Your task to perform on an android device: set the stopwatch Image 0: 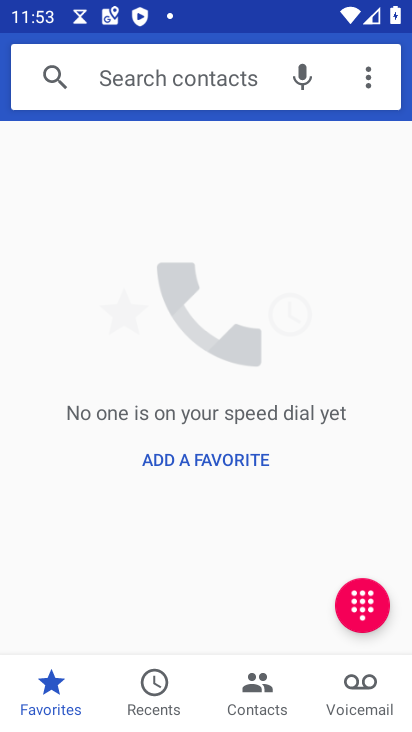
Step 0: press home button
Your task to perform on an android device: set the stopwatch Image 1: 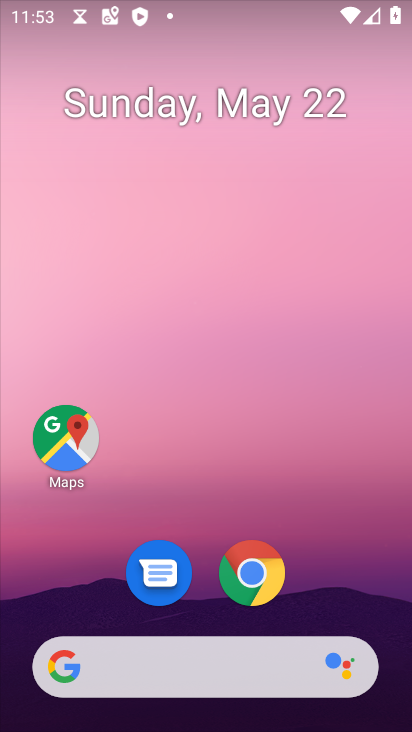
Step 1: drag from (182, 673) to (302, 203)
Your task to perform on an android device: set the stopwatch Image 2: 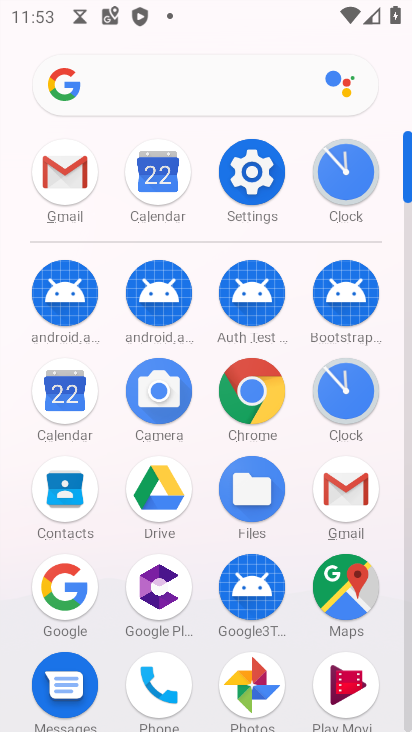
Step 2: click (353, 174)
Your task to perform on an android device: set the stopwatch Image 3: 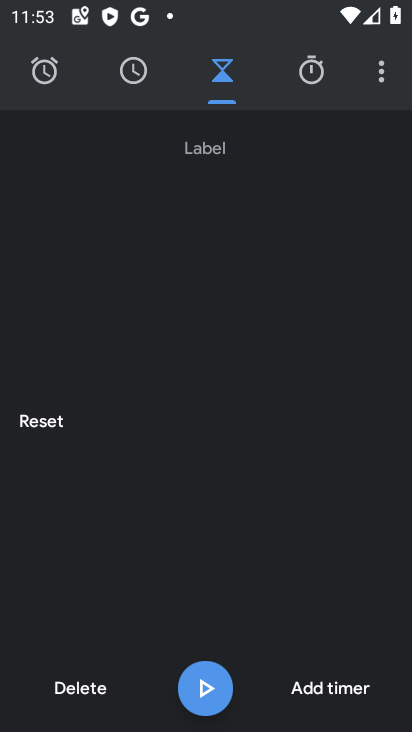
Step 3: click (314, 77)
Your task to perform on an android device: set the stopwatch Image 4: 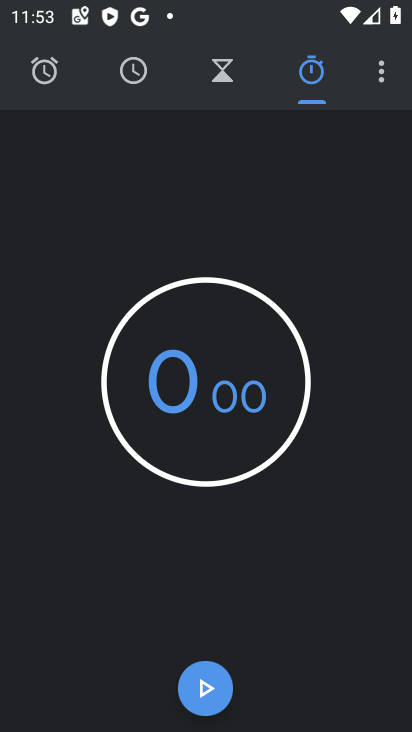
Step 4: click (150, 397)
Your task to perform on an android device: set the stopwatch Image 5: 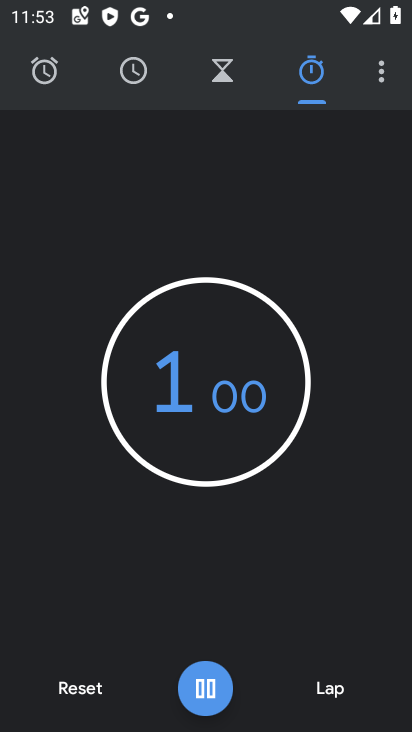
Step 5: click (162, 370)
Your task to perform on an android device: set the stopwatch Image 6: 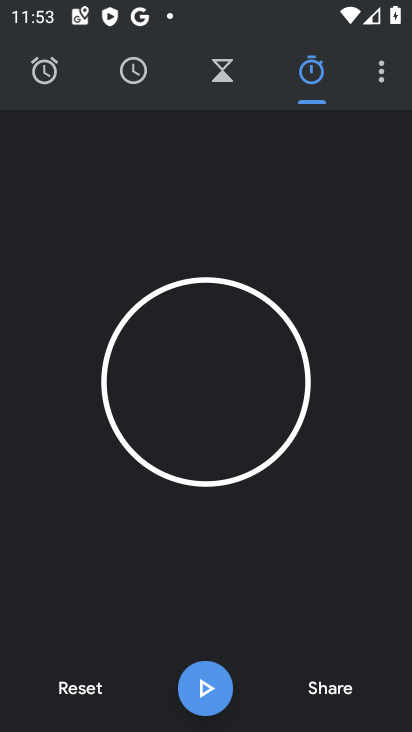
Step 6: task complete